Your task to perform on an android device: check out phone information Image 0: 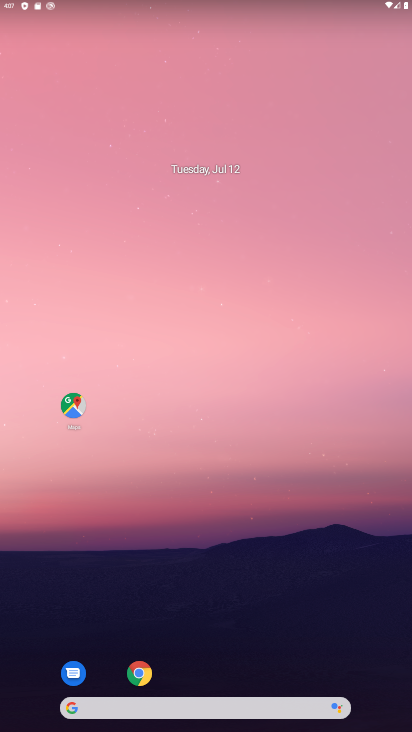
Step 0: drag from (233, 633) to (212, 142)
Your task to perform on an android device: check out phone information Image 1: 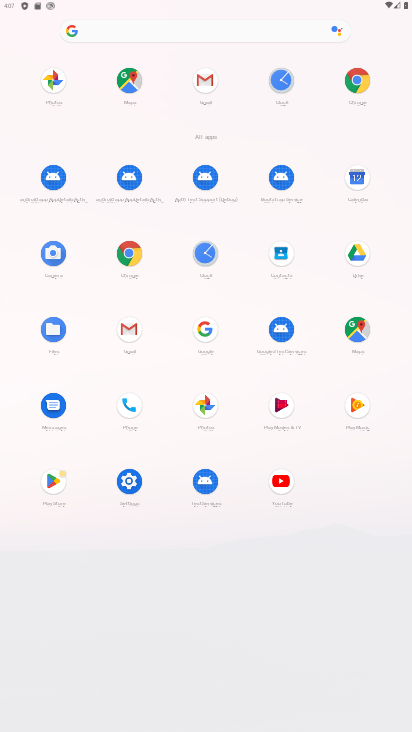
Step 1: click (139, 472)
Your task to perform on an android device: check out phone information Image 2: 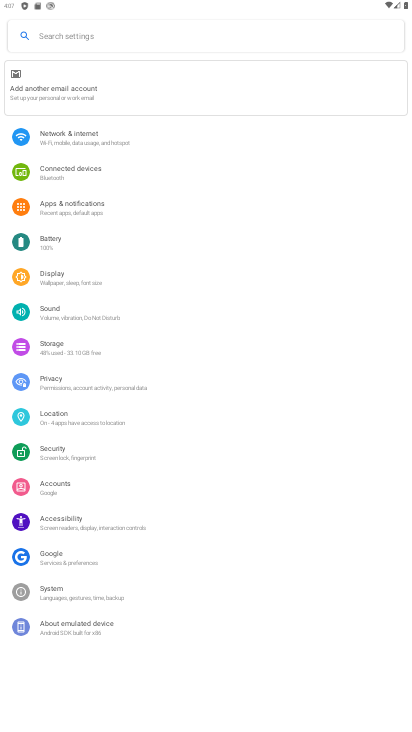
Step 2: click (84, 631)
Your task to perform on an android device: check out phone information Image 3: 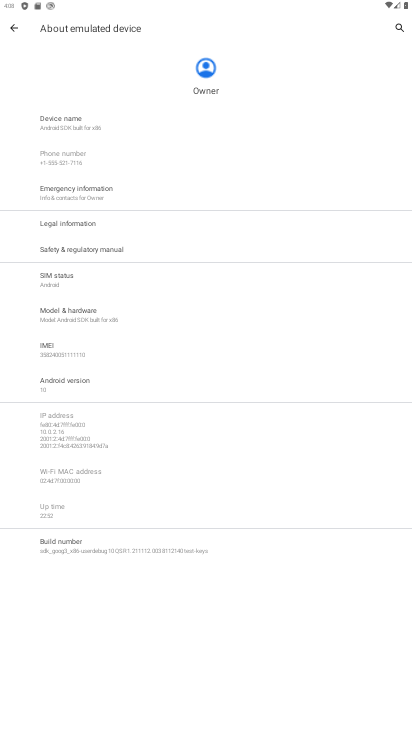
Step 3: task complete